Your task to perform on an android device: change keyboard looks Image 0: 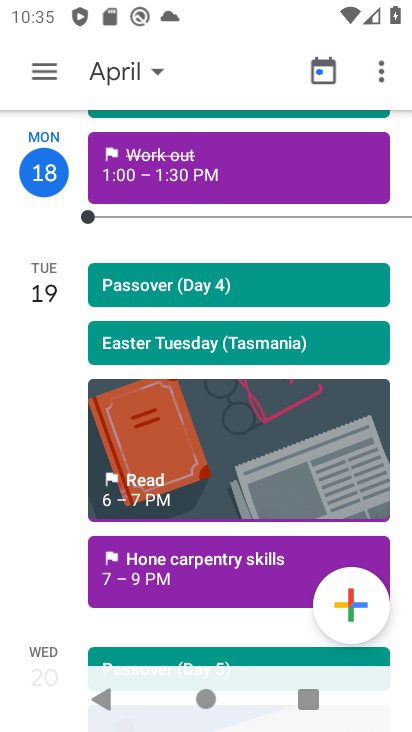
Step 0: drag from (263, 10) to (240, 713)
Your task to perform on an android device: change keyboard looks Image 1: 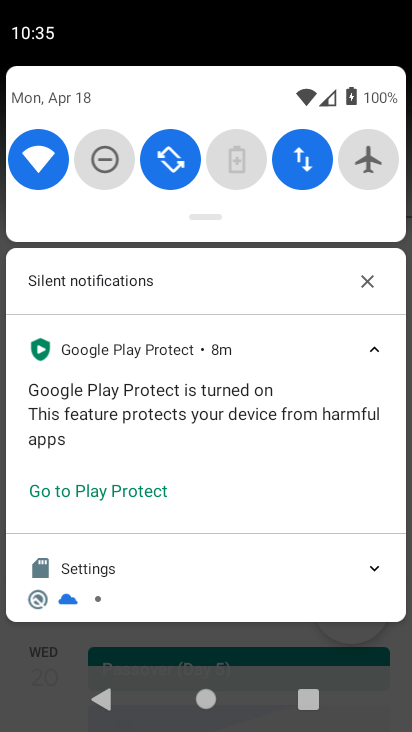
Step 1: drag from (245, 125) to (235, 715)
Your task to perform on an android device: change keyboard looks Image 2: 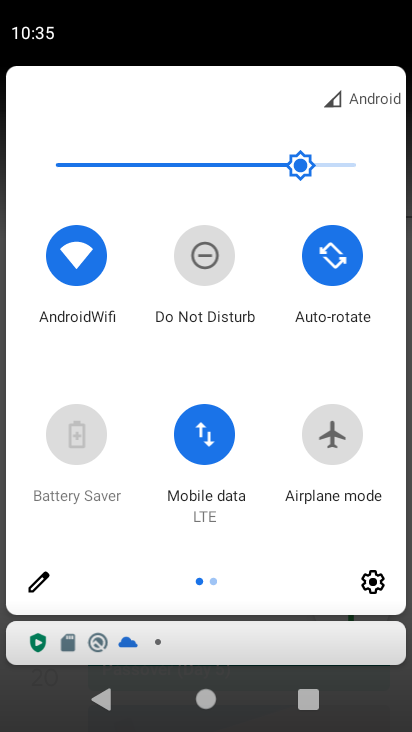
Step 2: click (373, 582)
Your task to perform on an android device: change keyboard looks Image 3: 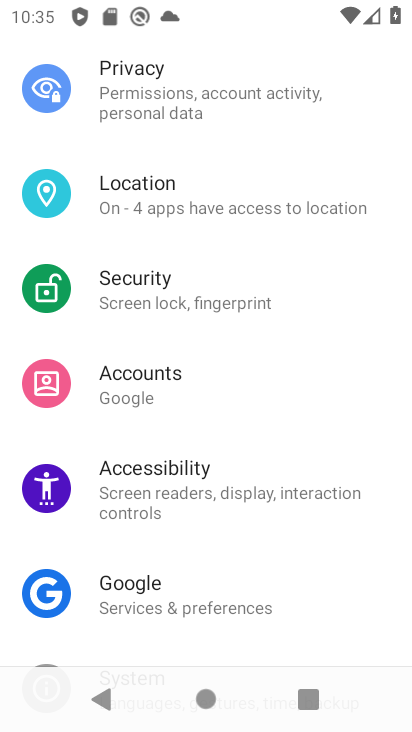
Step 3: drag from (170, 117) to (158, 538)
Your task to perform on an android device: change keyboard looks Image 4: 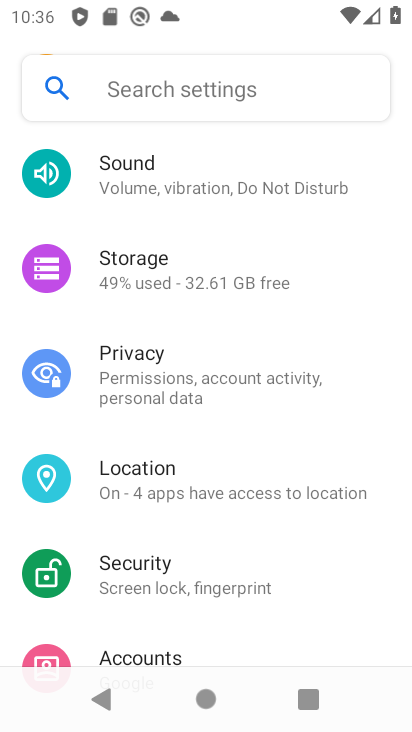
Step 4: click (209, 77)
Your task to perform on an android device: change keyboard looks Image 5: 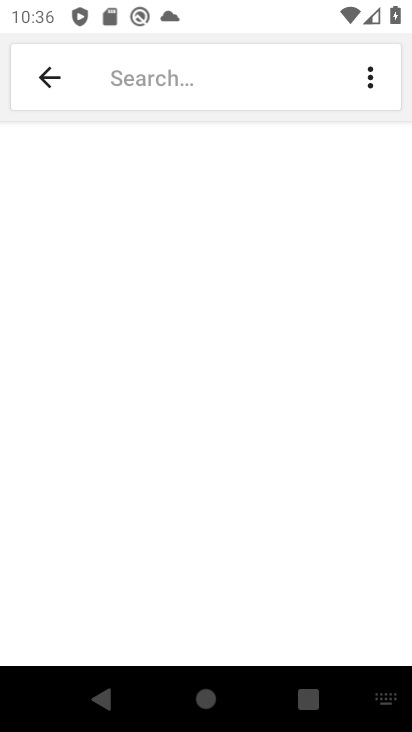
Step 5: type "keyboard"
Your task to perform on an android device: change keyboard looks Image 6: 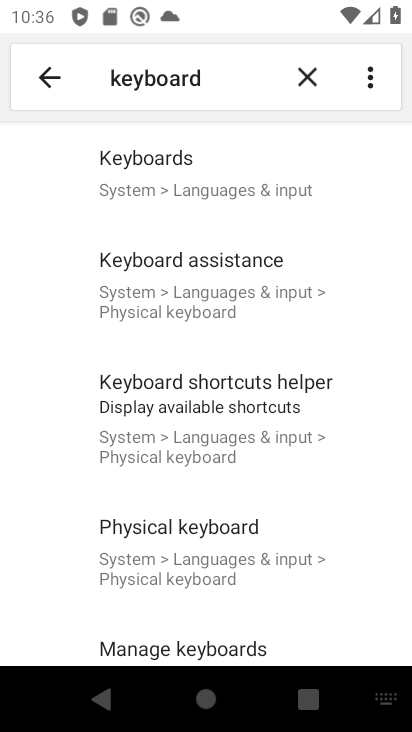
Step 6: click (201, 165)
Your task to perform on an android device: change keyboard looks Image 7: 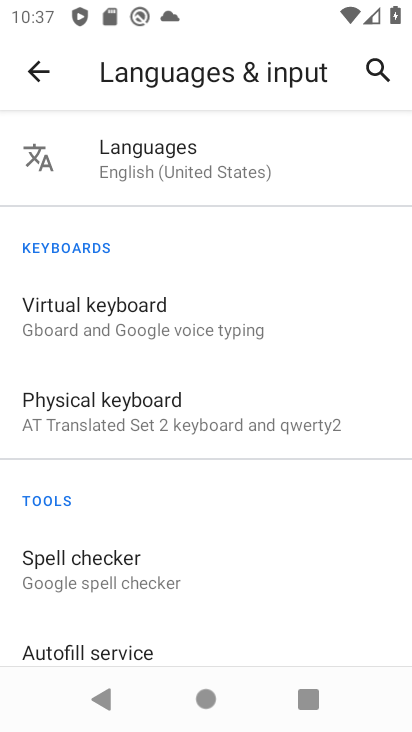
Step 7: click (132, 313)
Your task to perform on an android device: change keyboard looks Image 8: 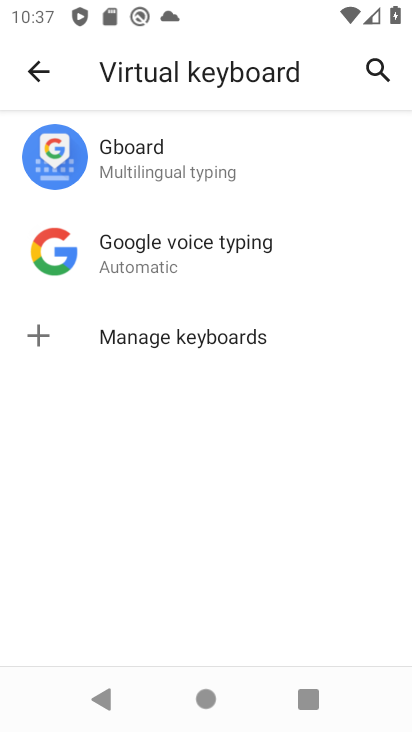
Step 8: click (122, 242)
Your task to perform on an android device: change keyboard looks Image 9: 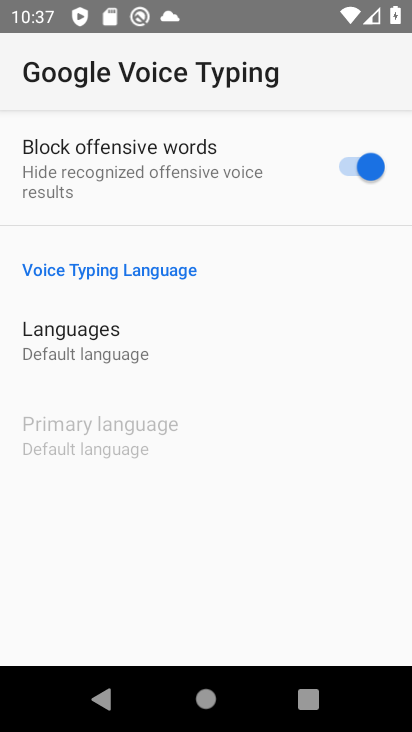
Step 9: click (164, 345)
Your task to perform on an android device: change keyboard looks Image 10: 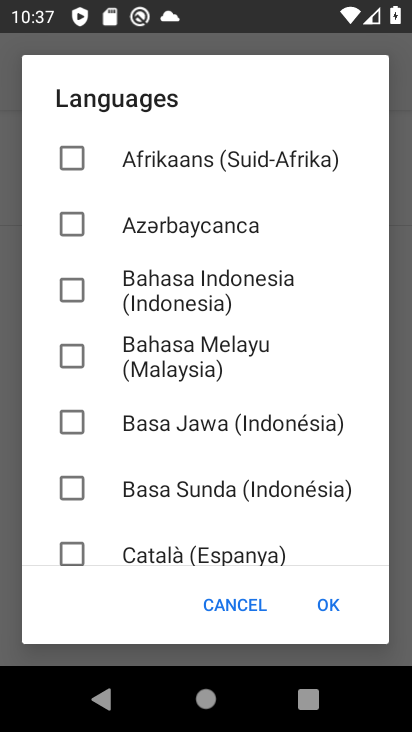
Step 10: click (235, 615)
Your task to perform on an android device: change keyboard looks Image 11: 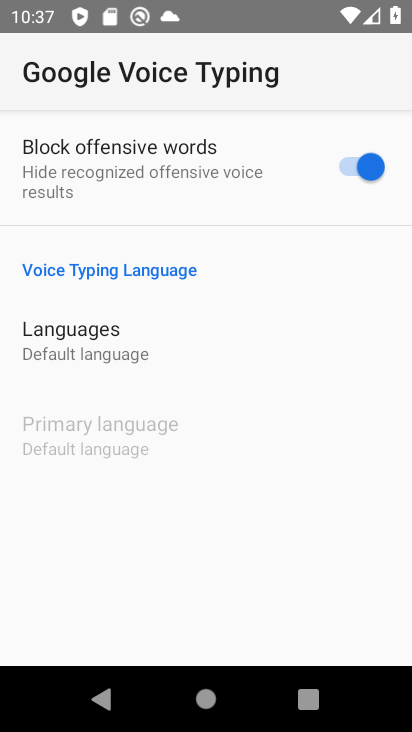
Step 11: press back button
Your task to perform on an android device: change keyboard looks Image 12: 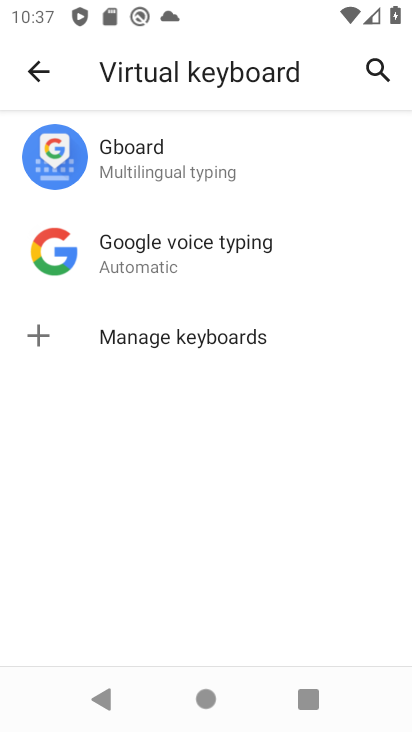
Step 12: click (96, 180)
Your task to perform on an android device: change keyboard looks Image 13: 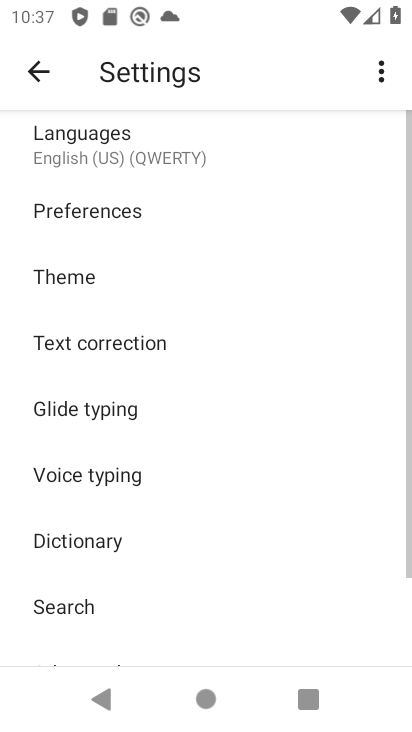
Step 13: click (86, 281)
Your task to perform on an android device: change keyboard looks Image 14: 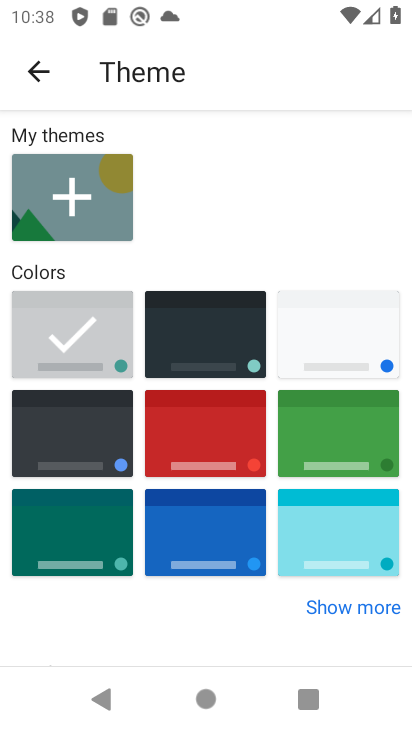
Step 14: click (172, 557)
Your task to perform on an android device: change keyboard looks Image 15: 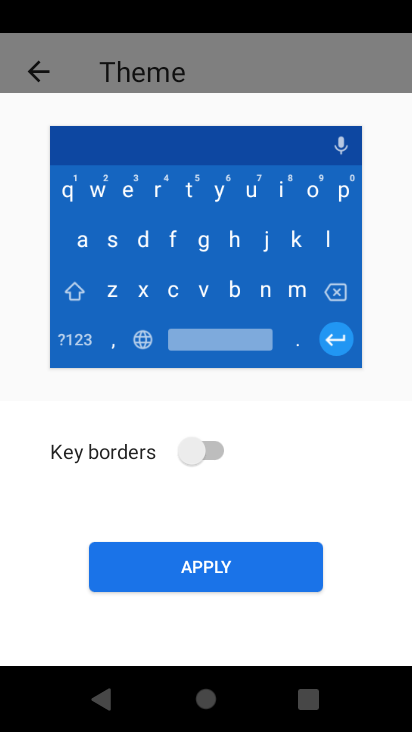
Step 15: task complete